Your task to perform on an android device: turn on translation in the chrome app Image 0: 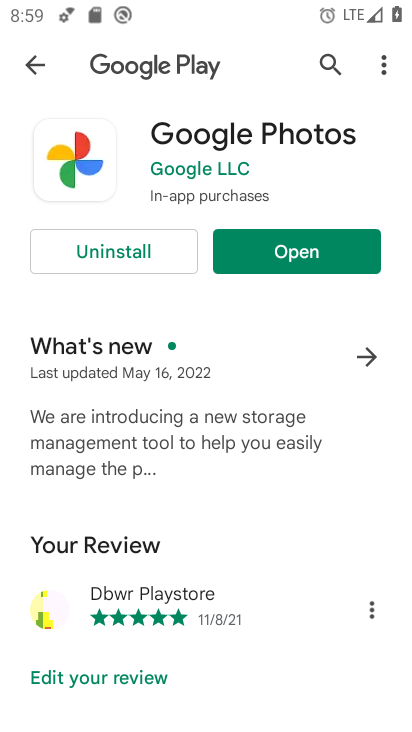
Step 0: press home button
Your task to perform on an android device: turn on translation in the chrome app Image 1: 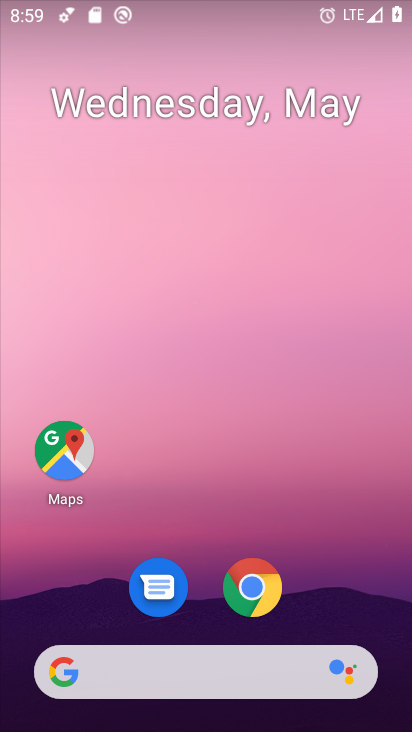
Step 1: click (283, 580)
Your task to perform on an android device: turn on translation in the chrome app Image 2: 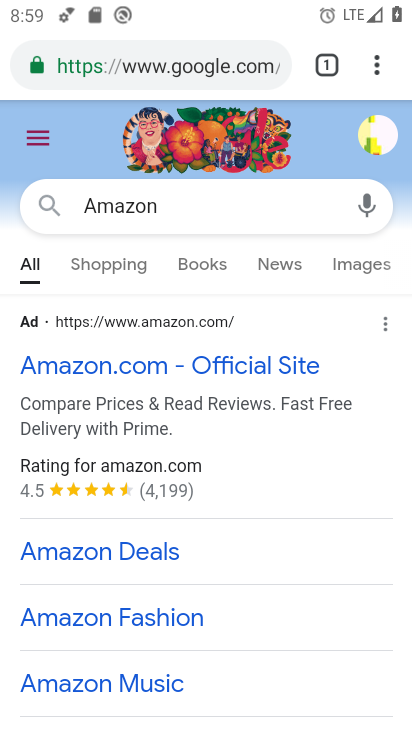
Step 2: click (375, 55)
Your task to perform on an android device: turn on translation in the chrome app Image 3: 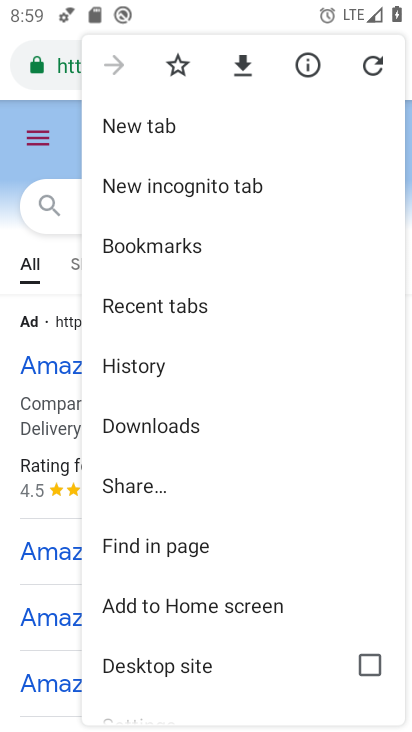
Step 3: drag from (195, 548) to (210, 178)
Your task to perform on an android device: turn on translation in the chrome app Image 4: 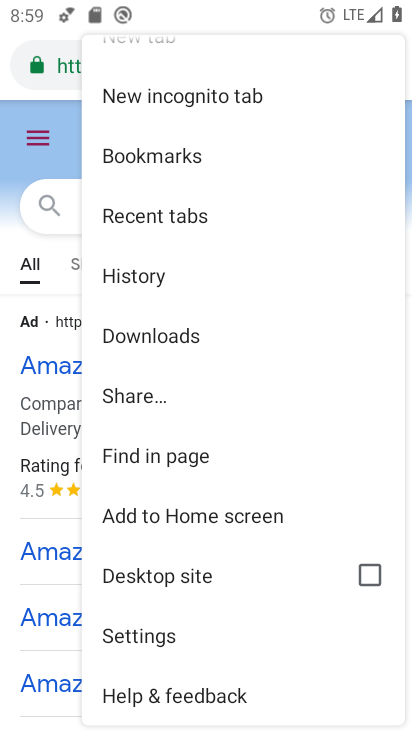
Step 4: click (152, 646)
Your task to perform on an android device: turn on translation in the chrome app Image 5: 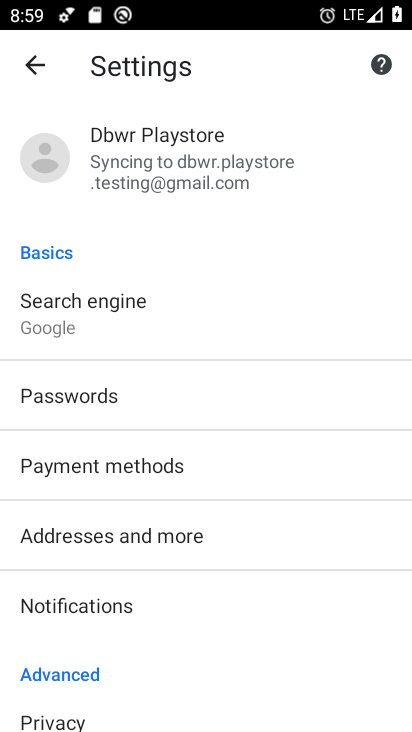
Step 5: drag from (137, 543) to (157, 234)
Your task to perform on an android device: turn on translation in the chrome app Image 6: 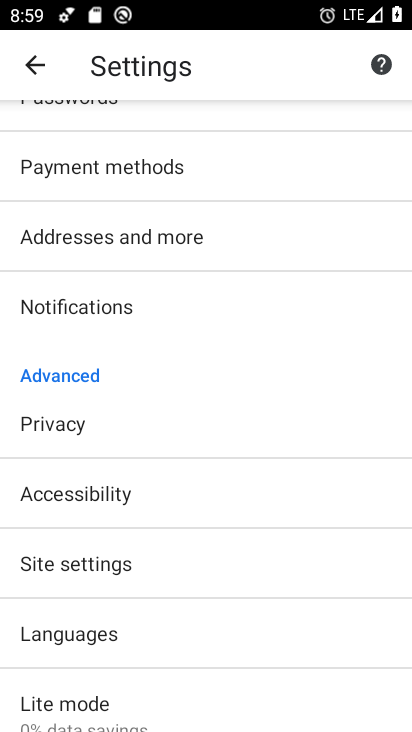
Step 6: click (91, 630)
Your task to perform on an android device: turn on translation in the chrome app Image 7: 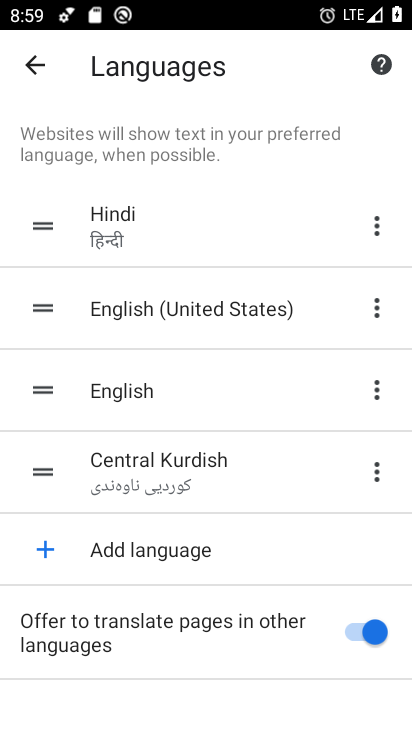
Step 7: task complete